Your task to perform on an android device: Do I have any events tomorrow? Image 0: 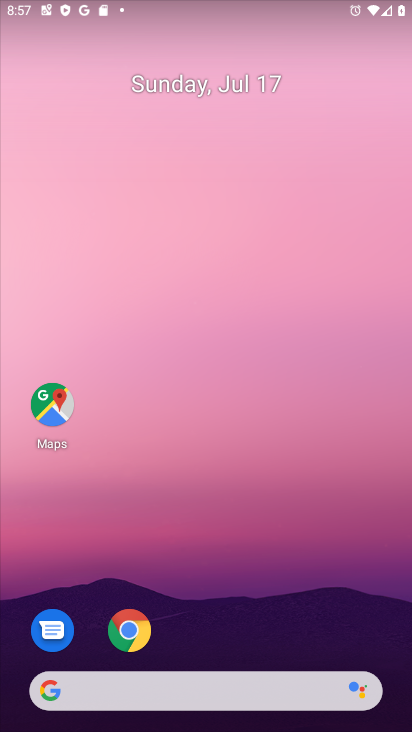
Step 0: drag from (149, 424) to (133, 67)
Your task to perform on an android device: Do I have any events tomorrow? Image 1: 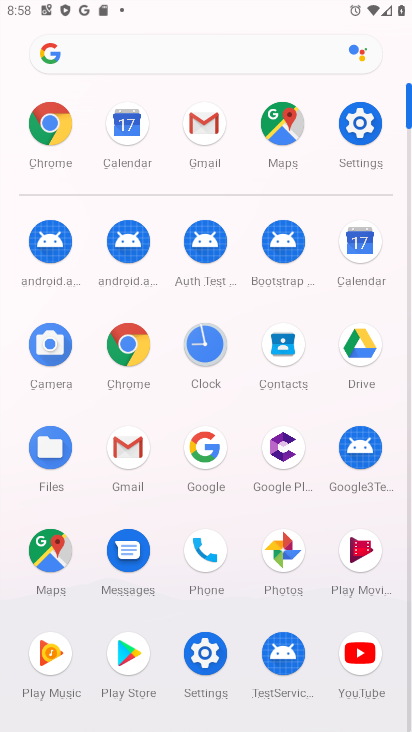
Step 1: click (363, 276)
Your task to perform on an android device: Do I have any events tomorrow? Image 2: 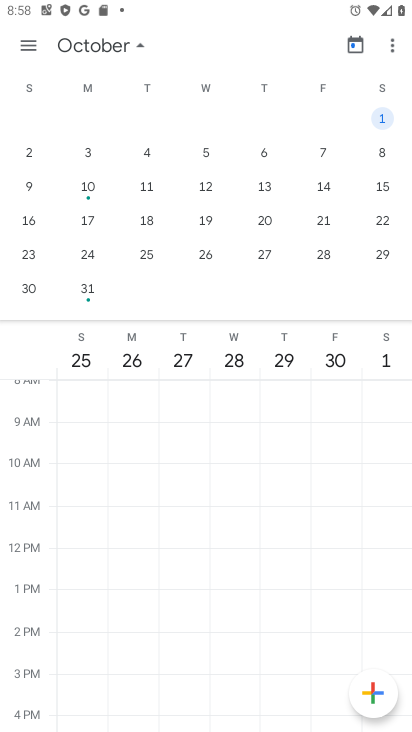
Step 2: drag from (167, 170) to (408, 147)
Your task to perform on an android device: Do I have any events tomorrow? Image 3: 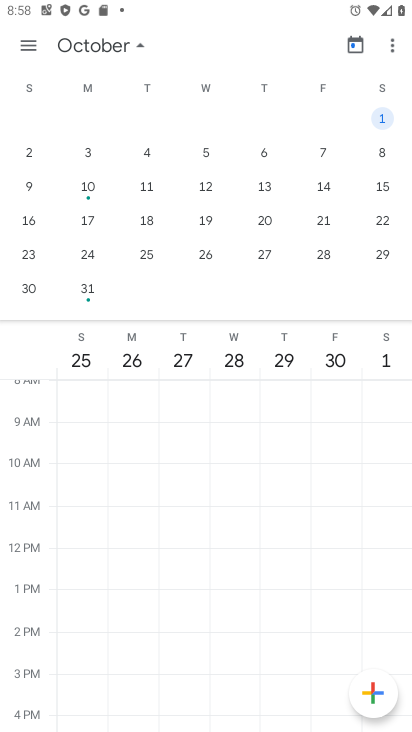
Step 3: drag from (140, 214) to (339, 151)
Your task to perform on an android device: Do I have any events tomorrow? Image 4: 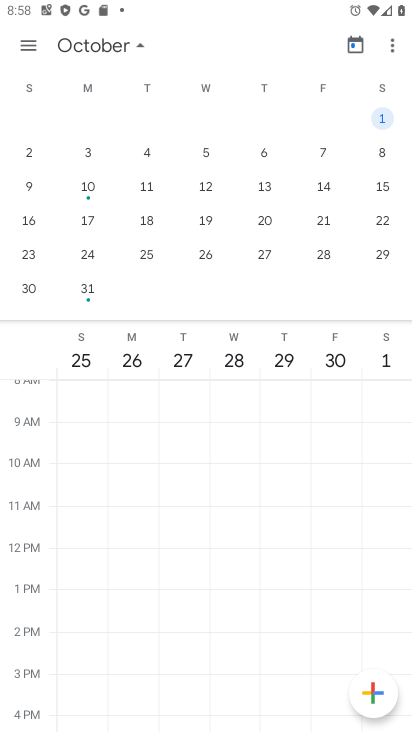
Step 4: drag from (167, 199) to (395, 165)
Your task to perform on an android device: Do I have any events tomorrow? Image 5: 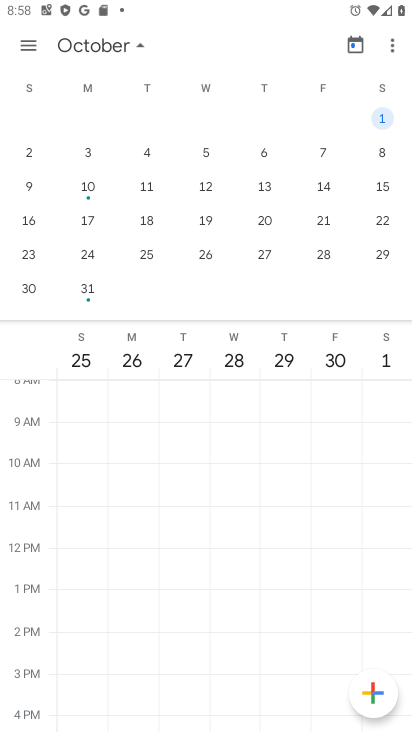
Step 5: drag from (143, 204) to (337, 190)
Your task to perform on an android device: Do I have any events tomorrow? Image 6: 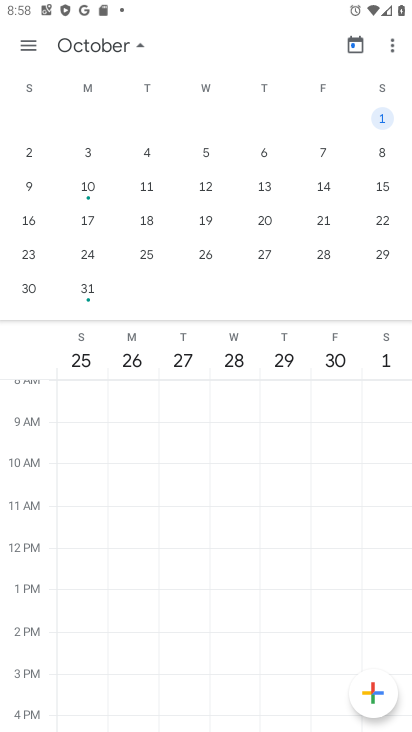
Step 6: drag from (148, 200) to (401, 160)
Your task to perform on an android device: Do I have any events tomorrow? Image 7: 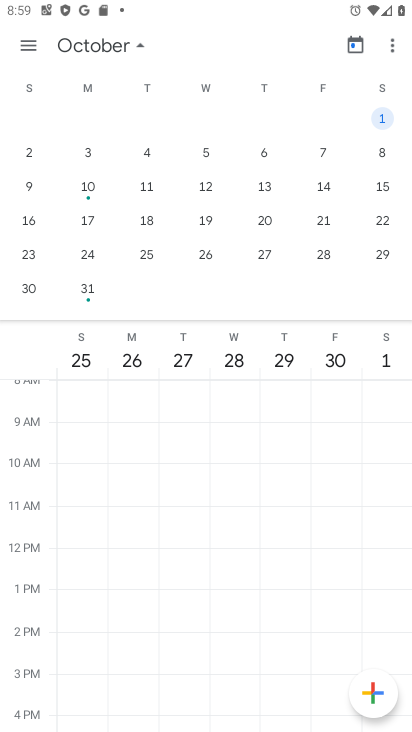
Step 7: drag from (250, 189) to (380, 187)
Your task to perform on an android device: Do I have any events tomorrow? Image 8: 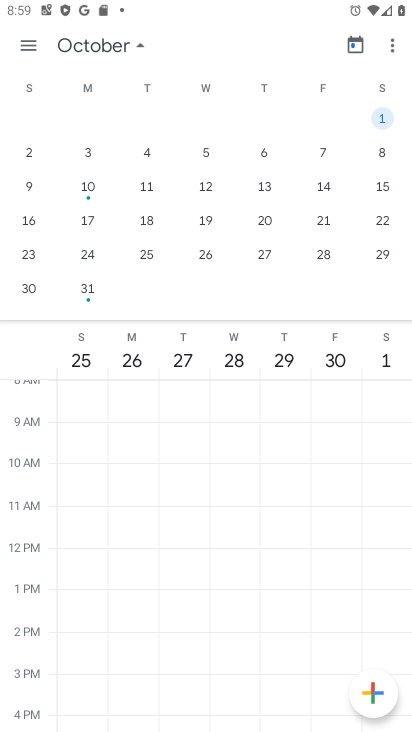
Step 8: drag from (90, 220) to (406, 174)
Your task to perform on an android device: Do I have any events tomorrow? Image 9: 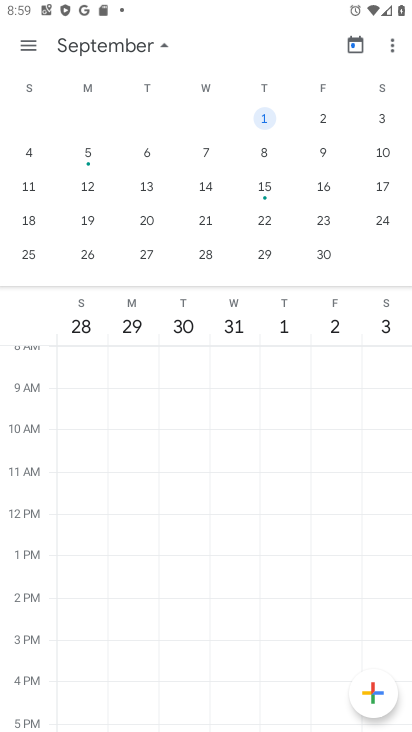
Step 9: drag from (83, 197) to (389, 137)
Your task to perform on an android device: Do I have any events tomorrow? Image 10: 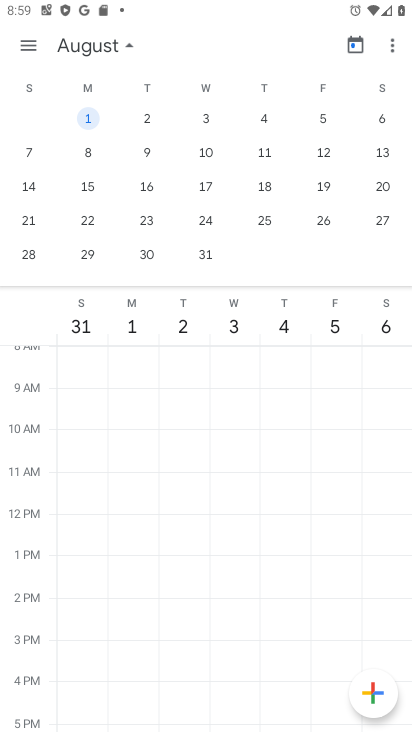
Step 10: drag from (234, 160) to (304, 170)
Your task to perform on an android device: Do I have any events tomorrow? Image 11: 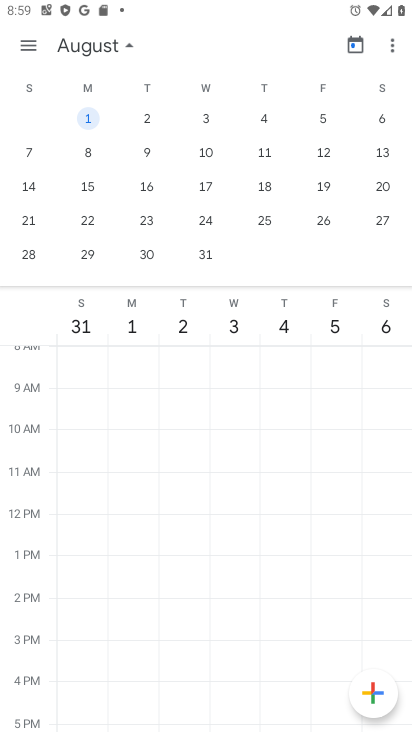
Step 11: drag from (316, 169) to (392, 162)
Your task to perform on an android device: Do I have any events tomorrow? Image 12: 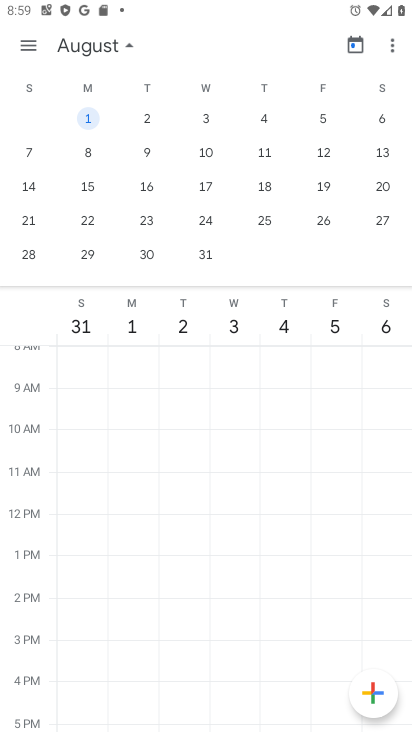
Step 12: drag from (248, 165) to (390, 153)
Your task to perform on an android device: Do I have any events tomorrow? Image 13: 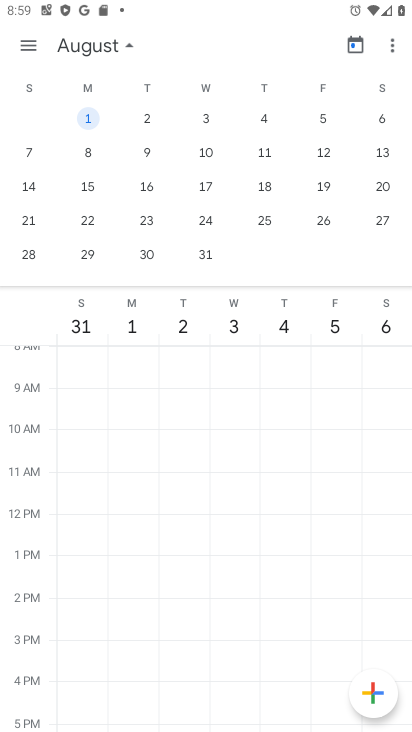
Step 13: click (258, 164)
Your task to perform on an android device: Do I have any events tomorrow? Image 14: 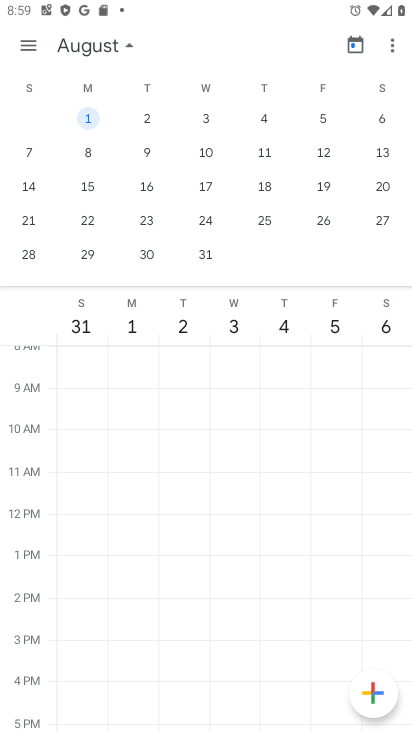
Step 14: drag from (192, 182) to (395, 164)
Your task to perform on an android device: Do I have any events tomorrow? Image 15: 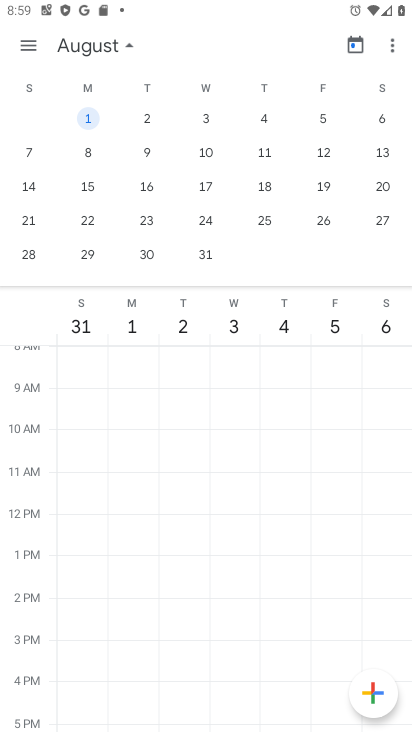
Step 15: drag from (23, 171) to (396, 190)
Your task to perform on an android device: Do I have any events tomorrow? Image 16: 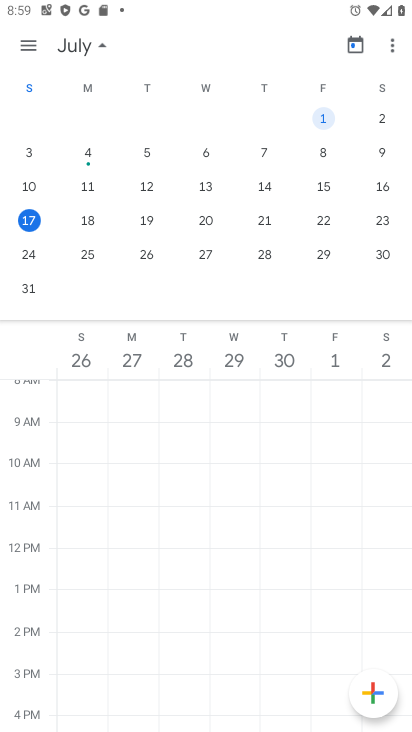
Step 16: click (91, 217)
Your task to perform on an android device: Do I have any events tomorrow? Image 17: 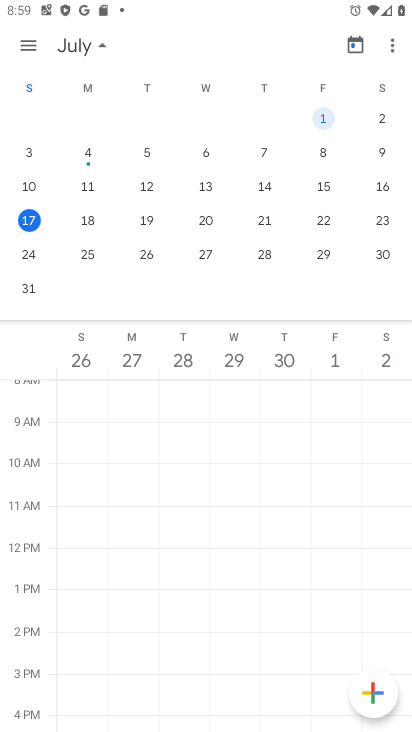
Step 17: click (91, 217)
Your task to perform on an android device: Do I have any events tomorrow? Image 18: 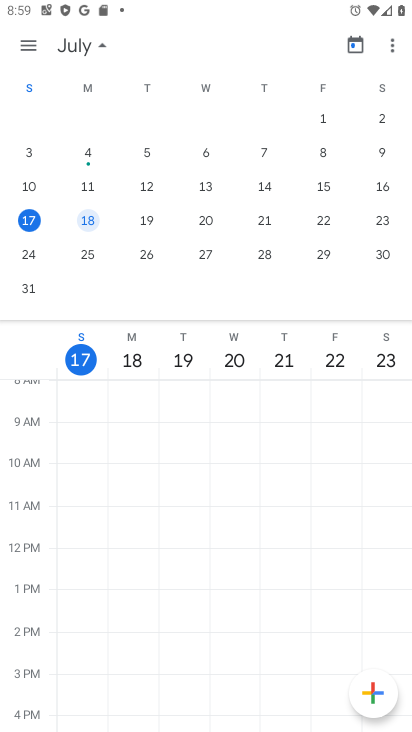
Step 18: task complete